Your task to perform on an android device: Open the web browser Image 0: 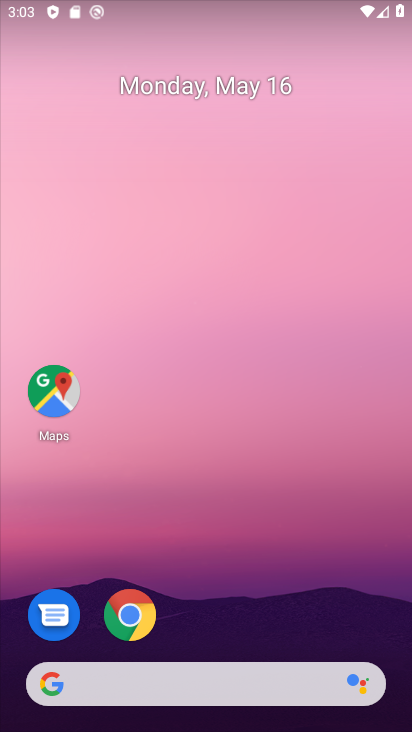
Step 0: click (122, 603)
Your task to perform on an android device: Open the web browser Image 1: 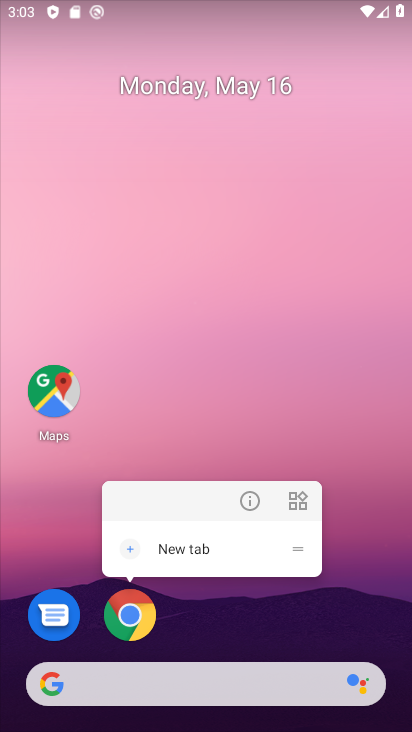
Step 1: click (122, 603)
Your task to perform on an android device: Open the web browser Image 2: 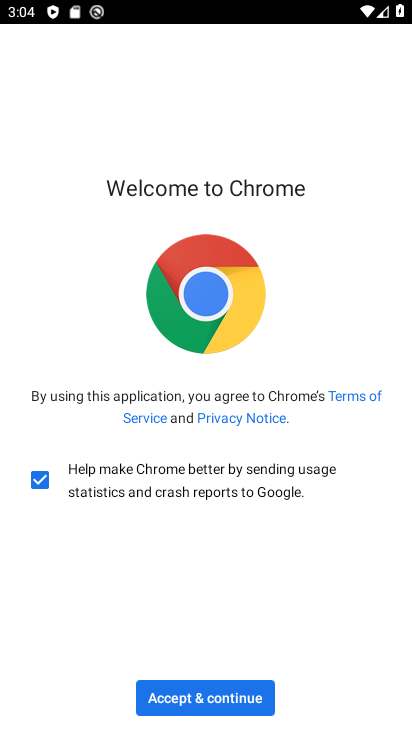
Step 2: click (201, 691)
Your task to perform on an android device: Open the web browser Image 3: 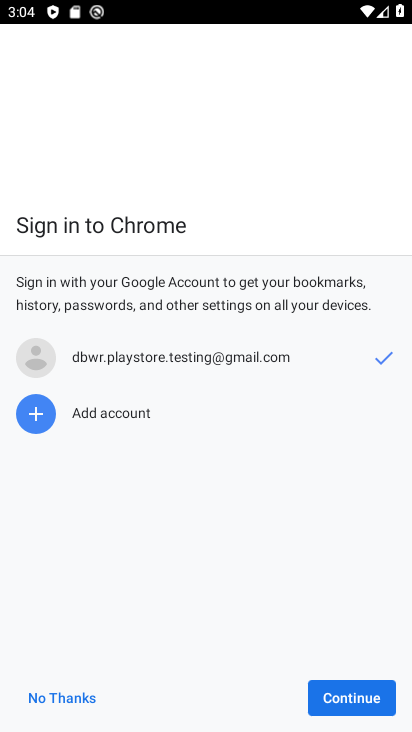
Step 3: click (340, 684)
Your task to perform on an android device: Open the web browser Image 4: 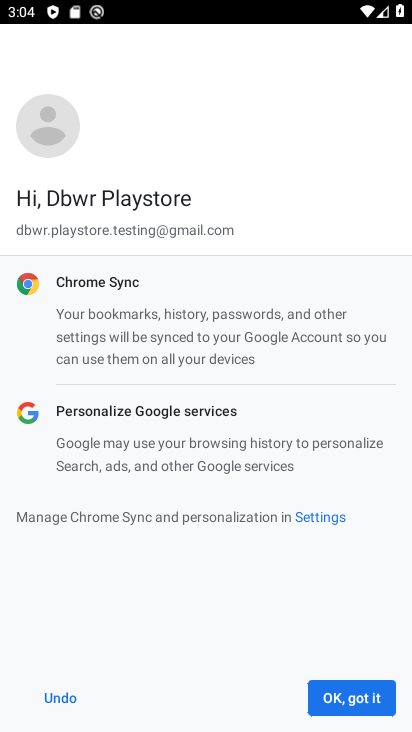
Step 4: click (349, 700)
Your task to perform on an android device: Open the web browser Image 5: 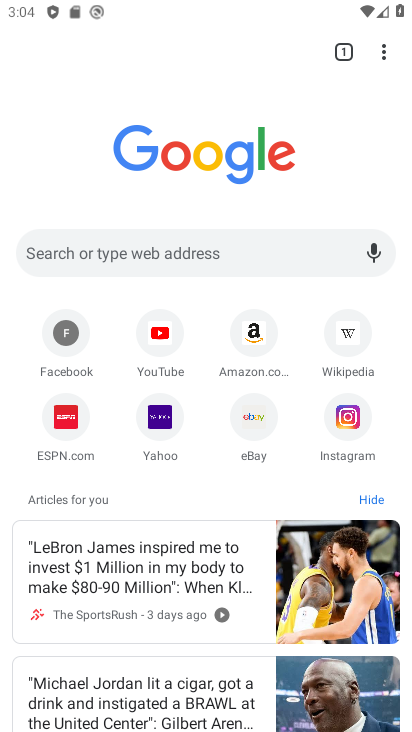
Step 5: task complete